Your task to perform on an android device: Add "lenovo thinkpad" to the cart on costco.com, then select checkout. Image 0: 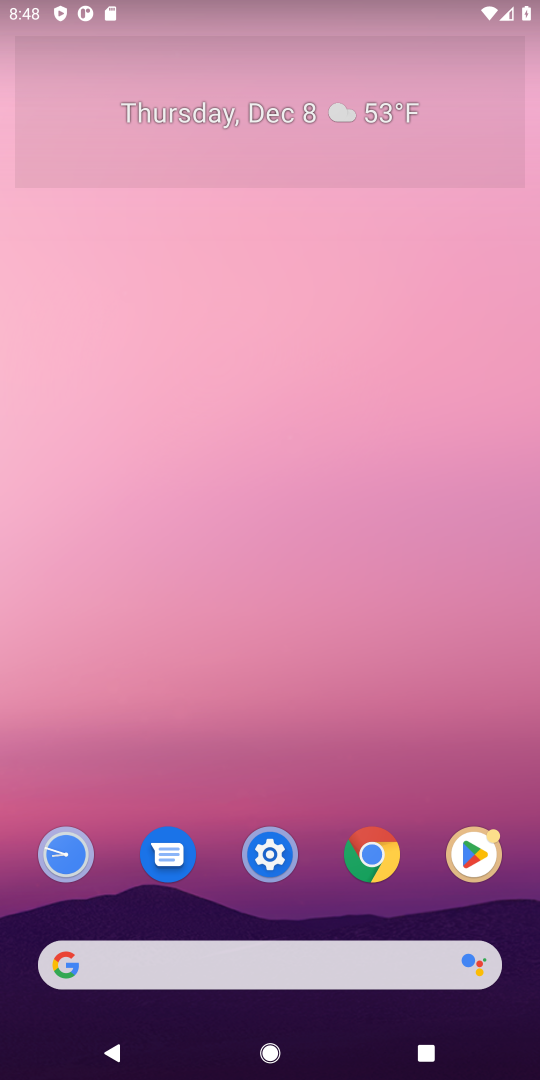
Step 0: press home button
Your task to perform on an android device: Add "lenovo thinkpad" to the cart on costco.com, then select checkout. Image 1: 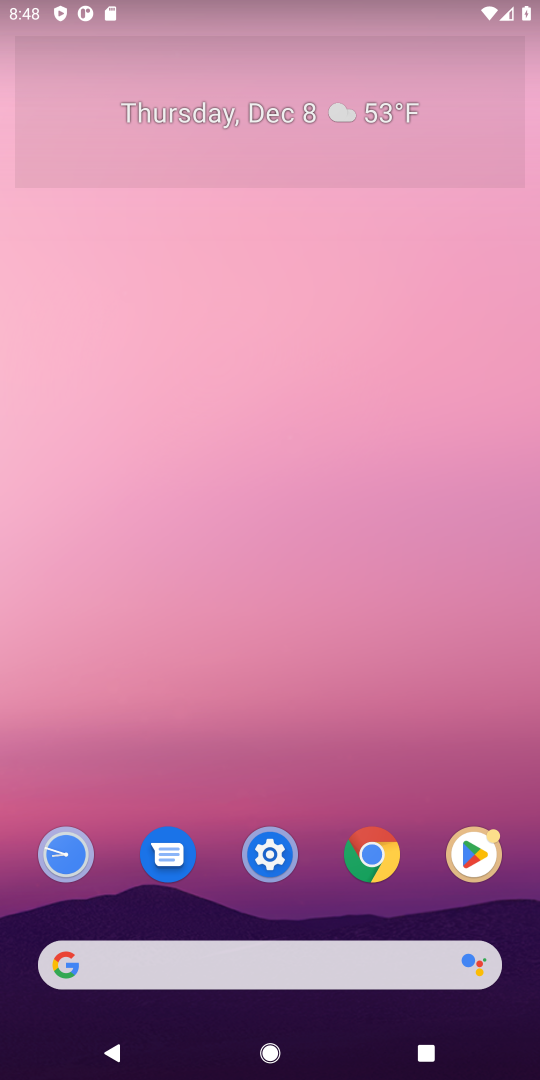
Step 1: click (98, 956)
Your task to perform on an android device: Add "lenovo thinkpad" to the cart on costco.com, then select checkout. Image 2: 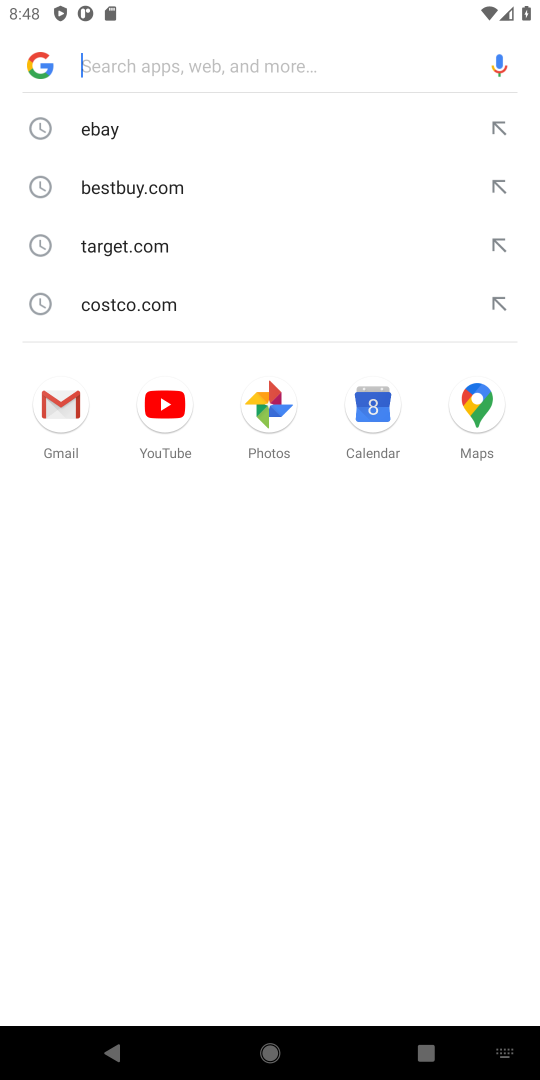
Step 2: type "costco.com"
Your task to perform on an android device: Add "lenovo thinkpad" to the cart on costco.com, then select checkout. Image 3: 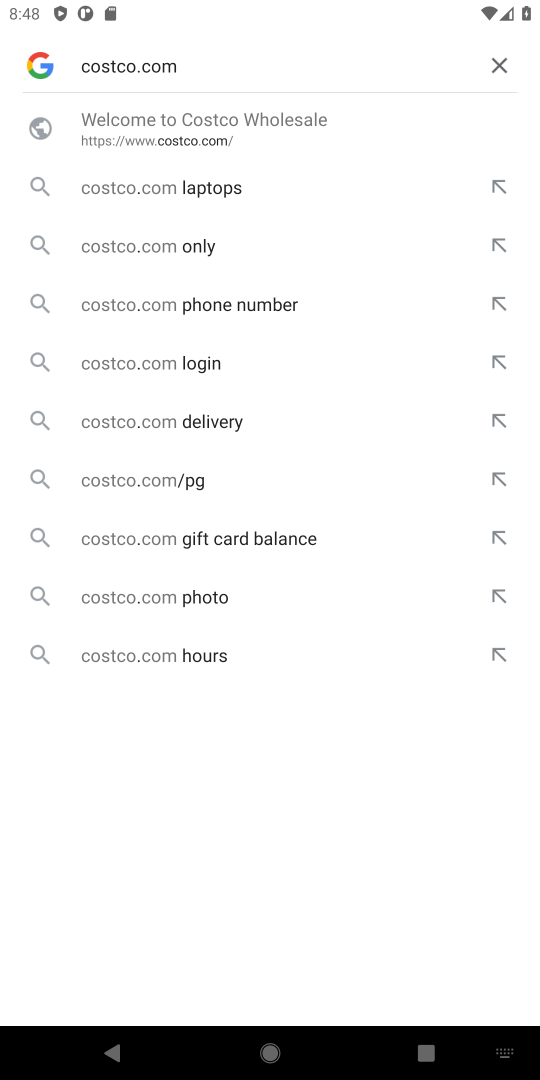
Step 3: press enter
Your task to perform on an android device: Add "lenovo thinkpad" to the cart on costco.com, then select checkout. Image 4: 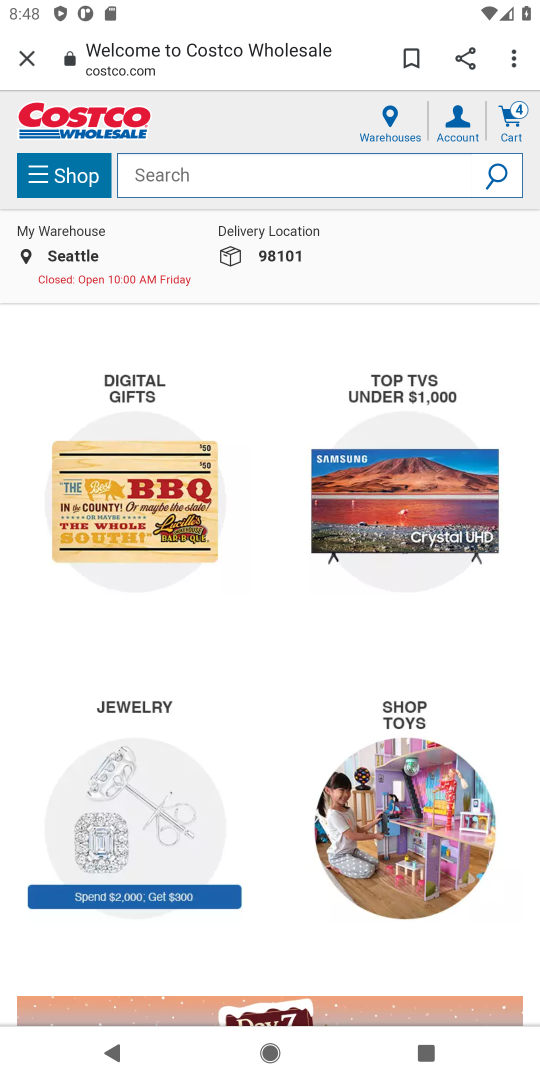
Step 4: click (151, 162)
Your task to perform on an android device: Add "lenovo thinkpad" to the cart on costco.com, then select checkout. Image 5: 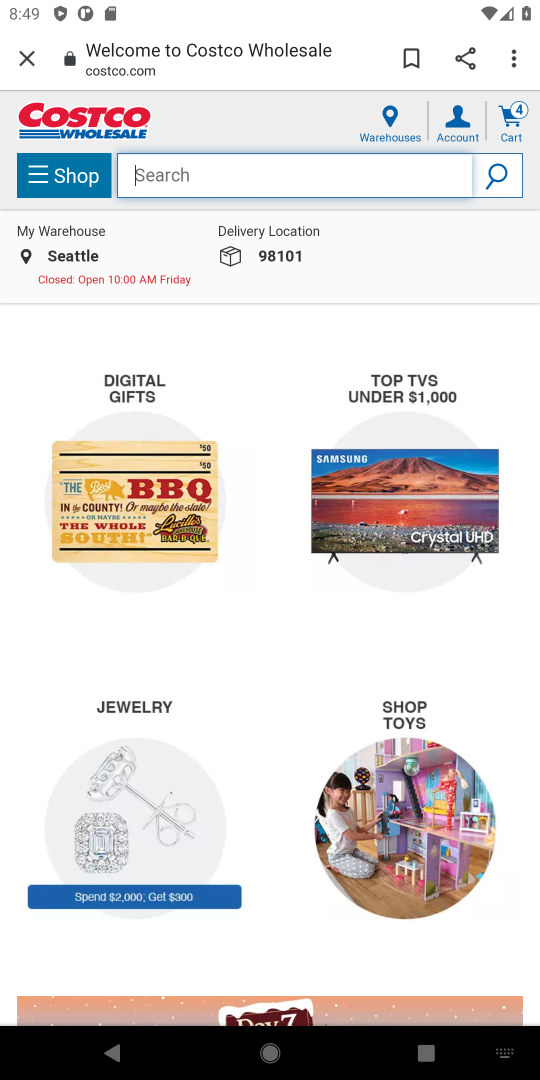
Step 5: type "lenovo thinkpad"
Your task to perform on an android device: Add "lenovo thinkpad" to the cart on costco.com, then select checkout. Image 6: 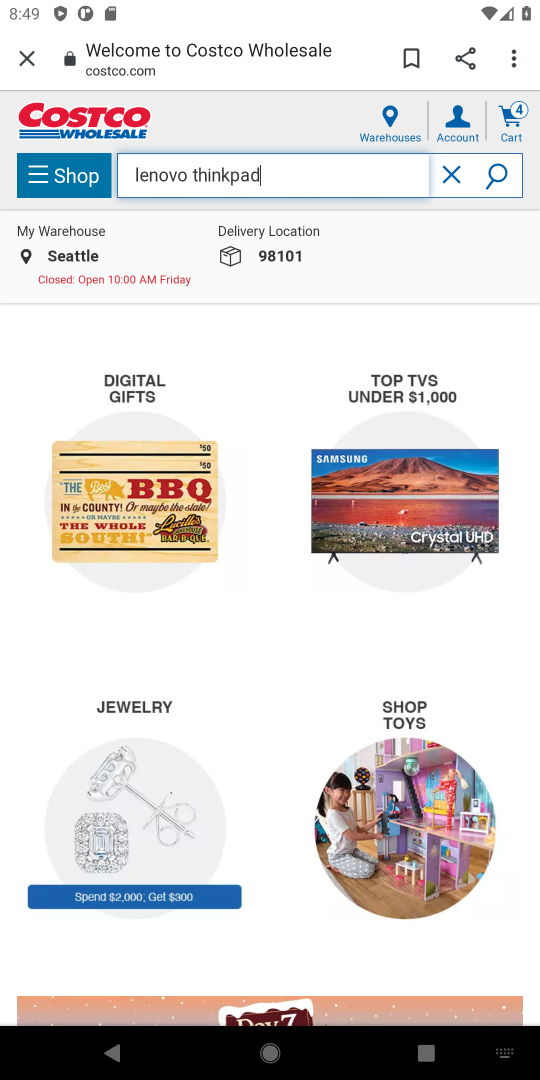
Step 6: press enter
Your task to perform on an android device: Add "lenovo thinkpad" to the cart on costco.com, then select checkout. Image 7: 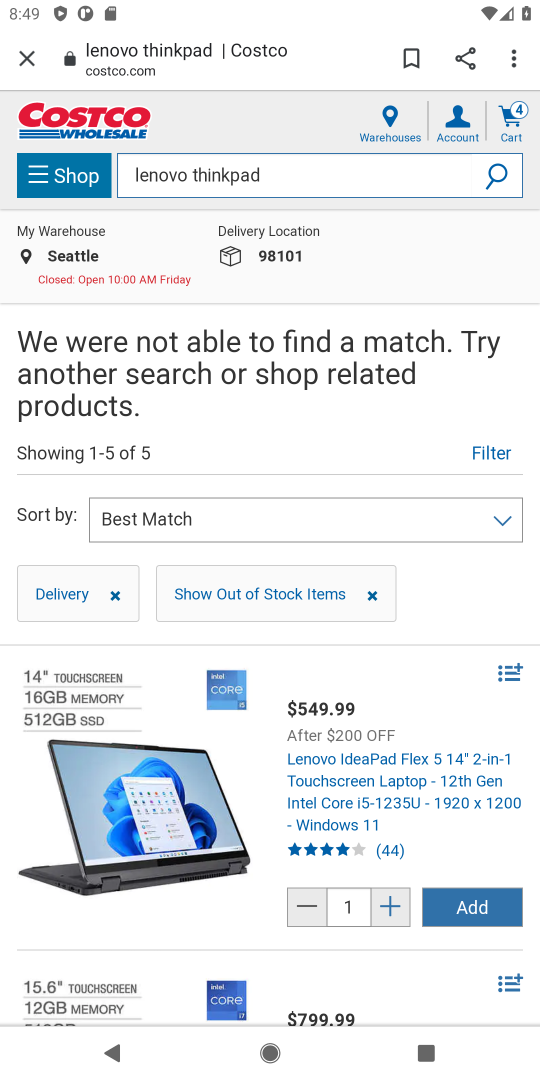
Step 7: task complete